Your task to perform on an android device: Open Wikipedia Image 0: 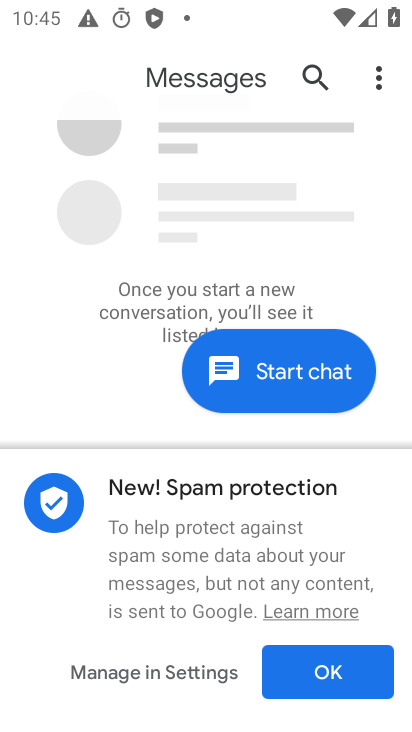
Step 0: press home button
Your task to perform on an android device: Open Wikipedia Image 1: 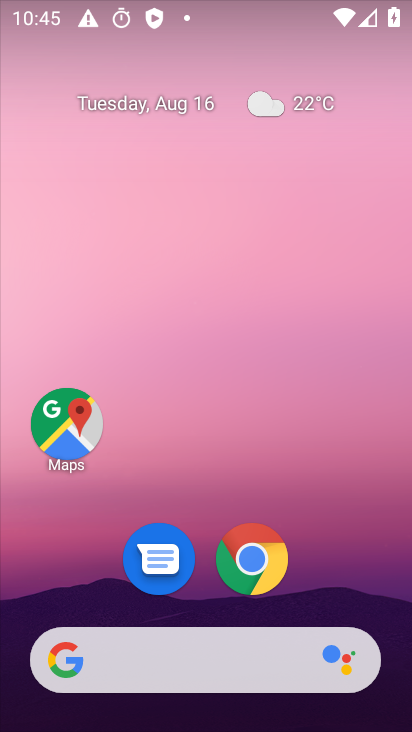
Step 1: click (252, 561)
Your task to perform on an android device: Open Wikipedia Image 2: 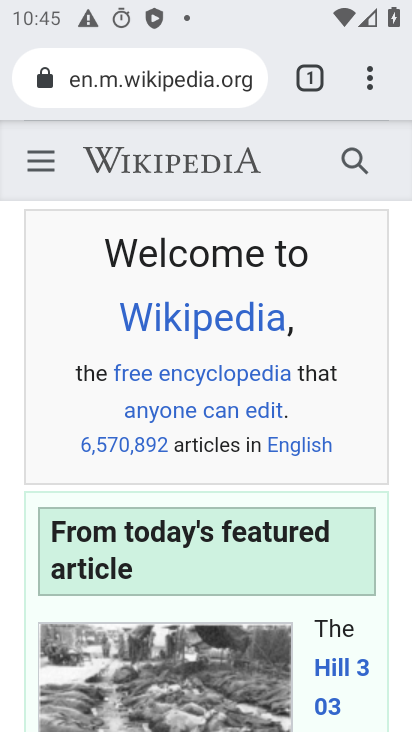
Step 2: task complete